Your task to perform on an android device: open chrome and create a bookmark for the current page Image 0: 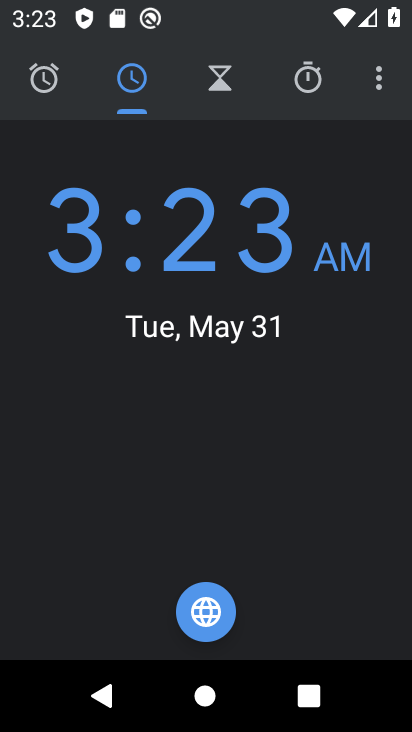
Step 0: press back button
Your task to perform on an android device: open chrome and create a bookmark for the current page Image 1: 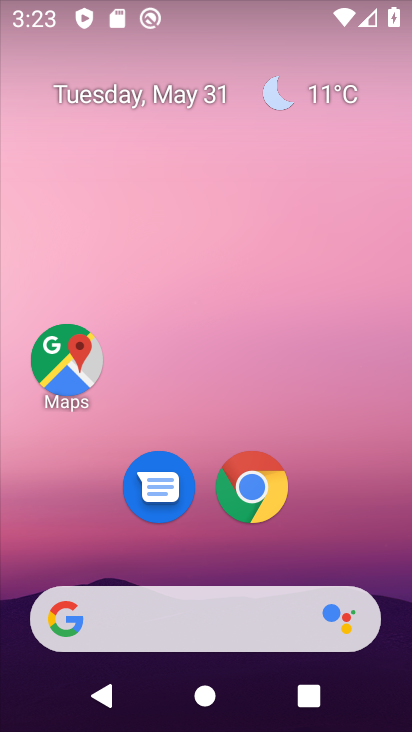
Step 1: click (254, 486)
Your task to perform on an android device: open chrome and create a bookmark for the current page Image 2: 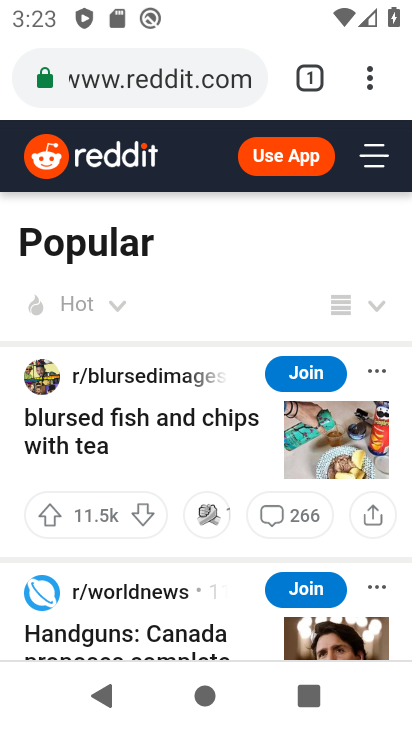
Step 2: click (367, 79)
Your task to perform on an android device: open chrome and create a bookmark for the current page Image 3: 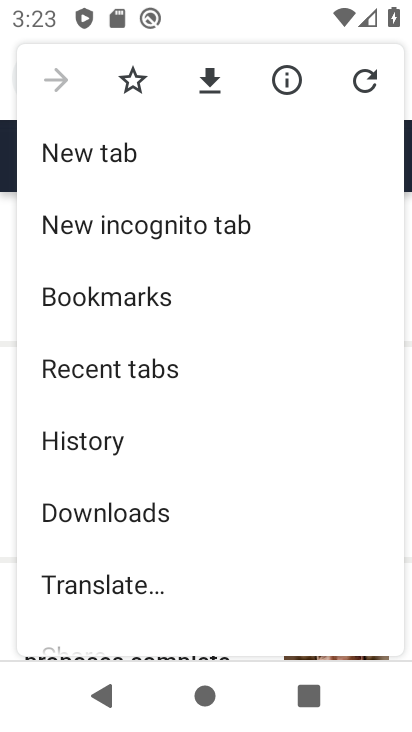
Step 3: click (129, 84)
Your task to perform on an android device: open chrome and create a bookmark for the current page Image 4: 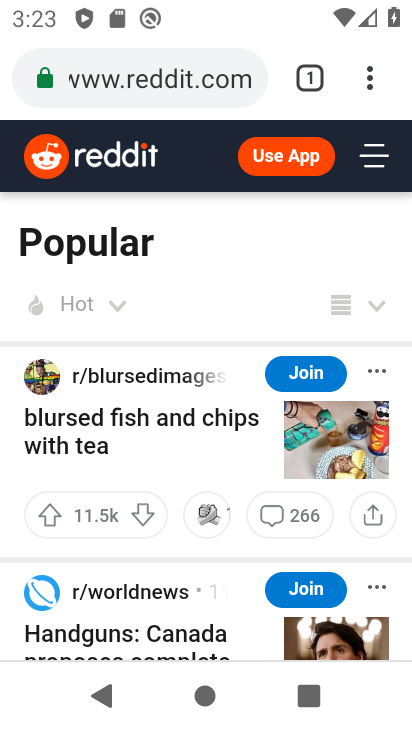
Step 4: task complete